Your task to perform on an android device: open sync settings in chrome Image 0: 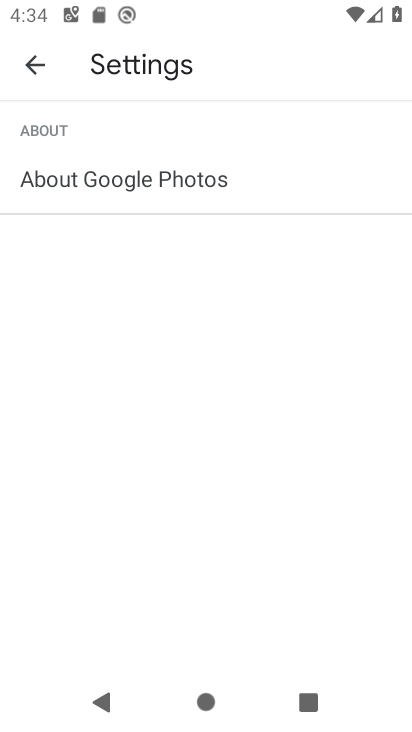
Step 0: press home button
Your task to perform on an android device: open sync settings in chrome Image 1: 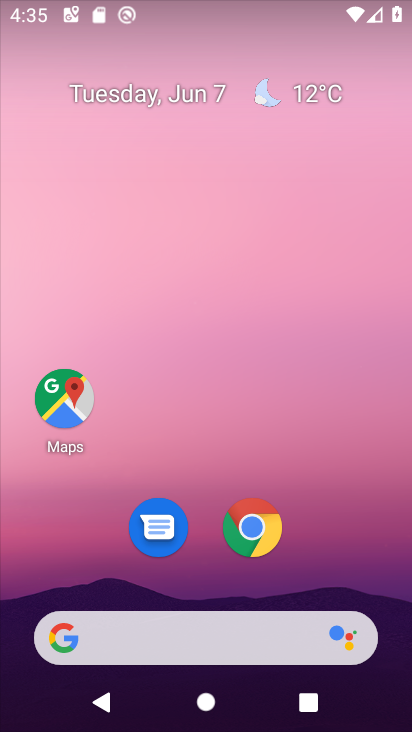
Step 1: click (255, 546)
Your task to perform on an android device: open sync settings in chrome Image 2: 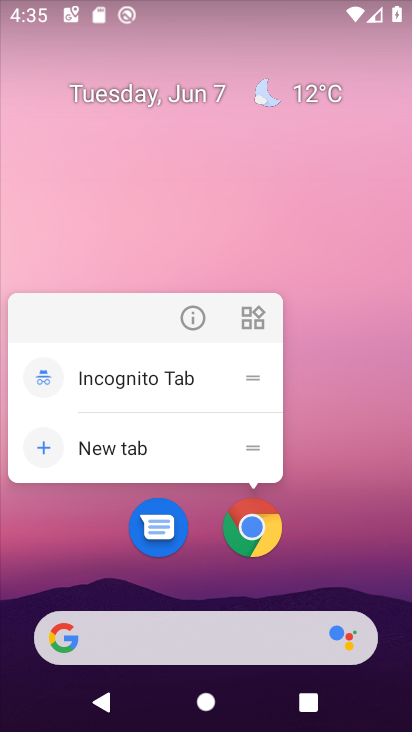
Step 2: click (260, 536)
Your task to perform on an android device: open sync settings in chrome Image 3: 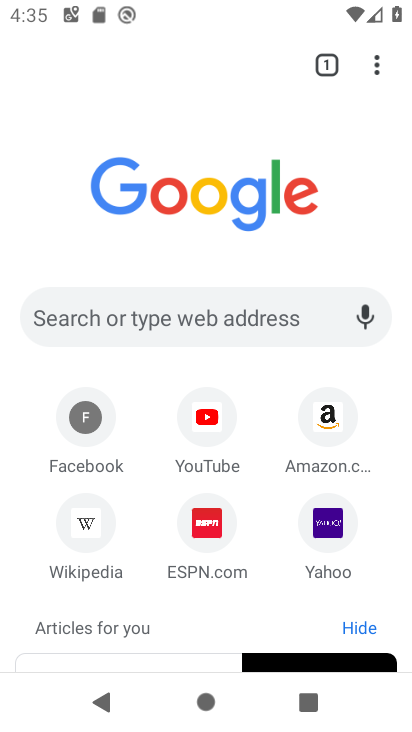
Step 3: click (376, 55)
Your task to perform on an android device: open sync settings in chrome Image 4: 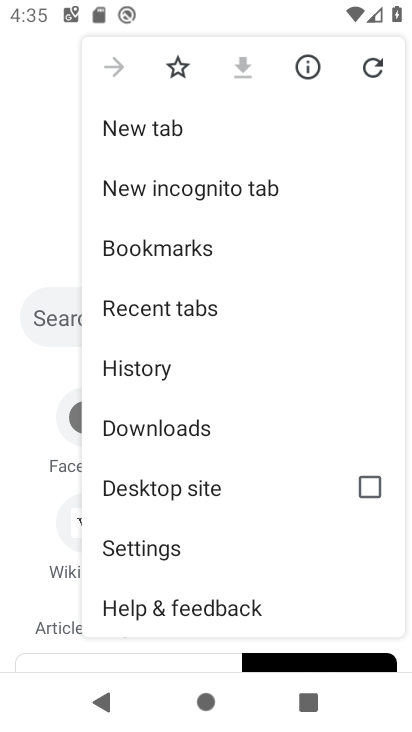
Step 4: click (147, 547)
Your task to perform on an android device: open sync settings in chrome Image 5: 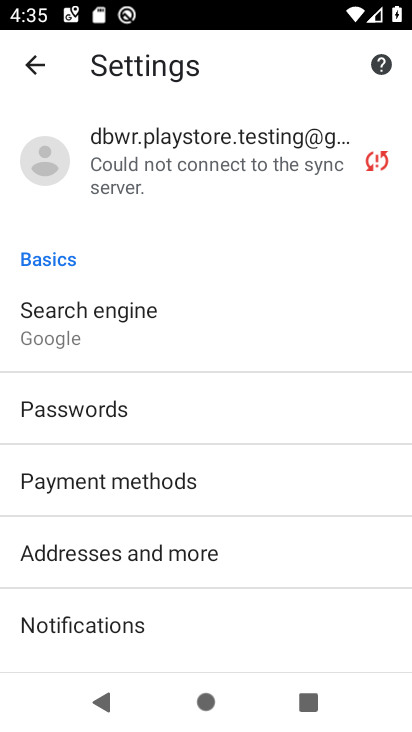
Step 5: click (186, 163)
Your task to perform on an android device: open sync settings in chrome Image 6: 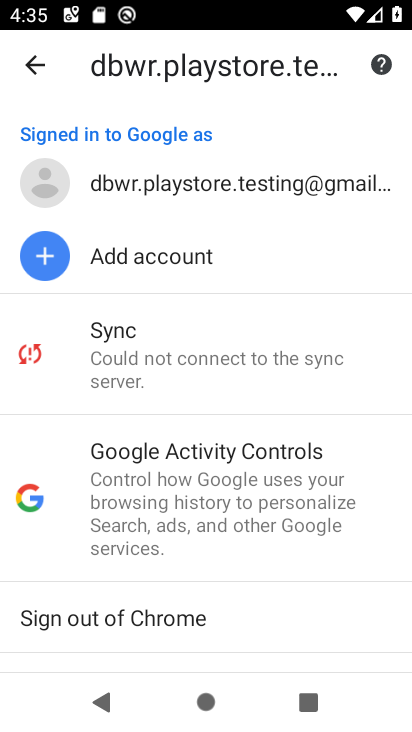
Step 6: click (178, 349)
Your task to perform on an android device: open sync settings in chrome Image 7: 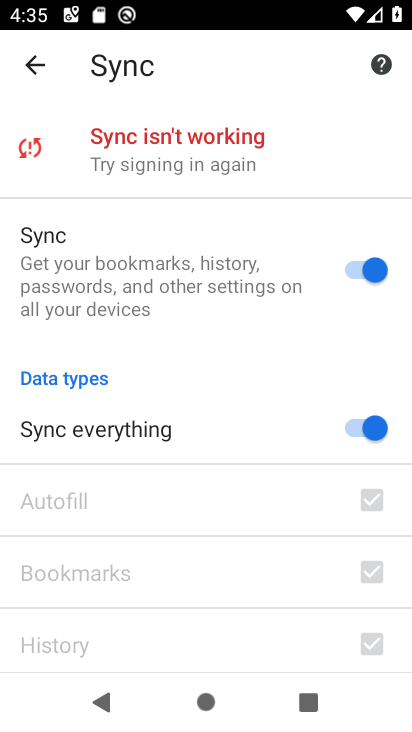
Step 7: click (209, 151)
Your task to perform on an android device: open sync settings in chrome Image 8: 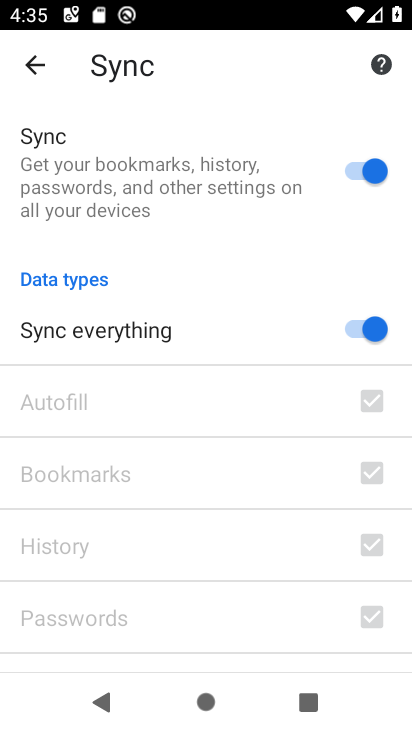
Step 8: task complete